Your task to perform on an android device: When is my next meeting? Image 0: 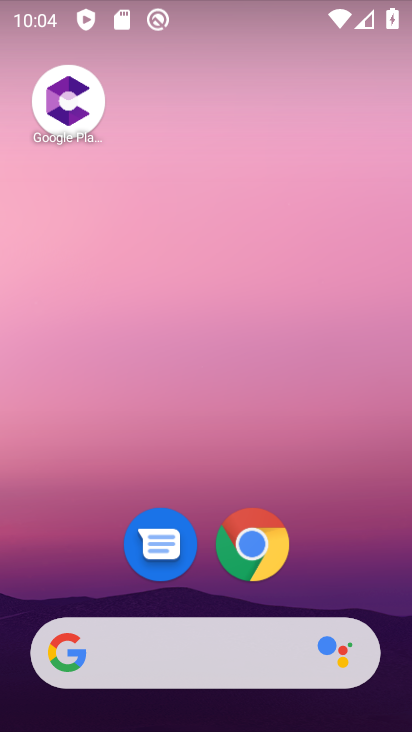
Step 0: drag from (219, 595) to (228, 229)
Your task to perform on an android device: When is my next meeting? Image 1: 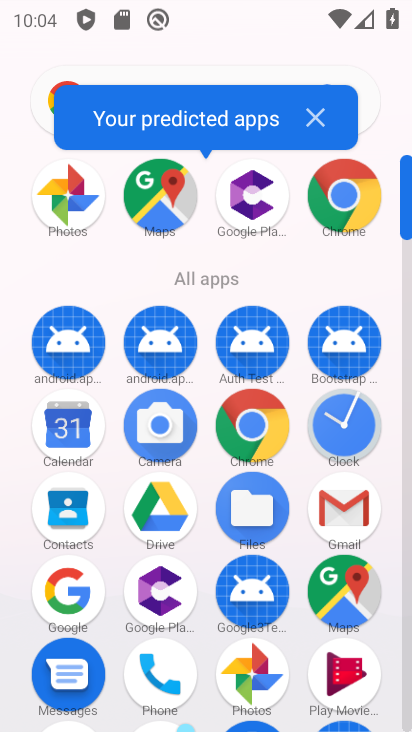
Step 1: click (81, 415)
Your task to perform on an android device: When is my next meeting? Image 2: 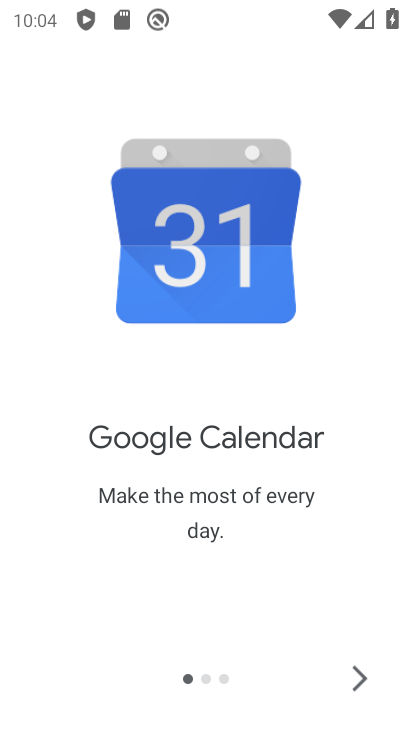
Step 2: click (345, 676)
Your task to perform on an android device: When is my next meeting? Image 3: 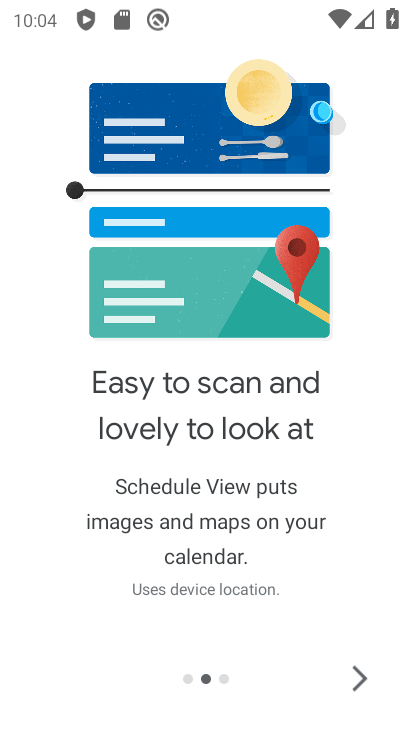
Step 3: click (345, 676)
Your task to perform on an android device: When is my next meeting? Image 4: 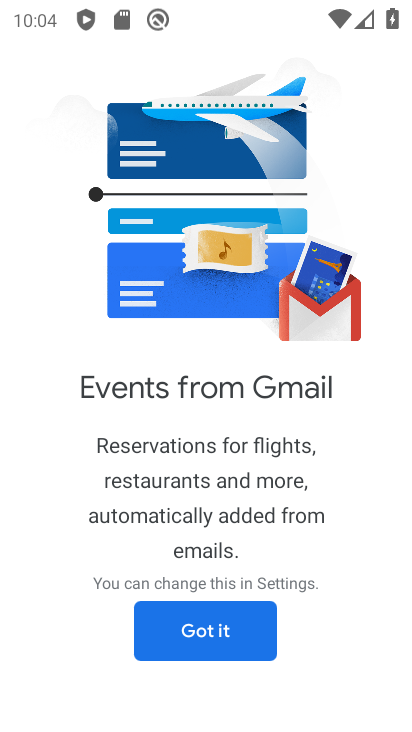
Step 4: click (266, 636)
Your task to perform on an android device: When is my next meeting? Image 5: 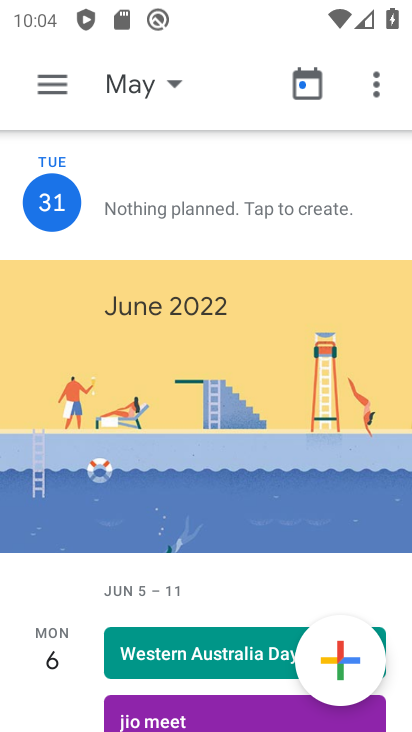
Step 5: drag from (208, 592) to (218, 290)
Your task to perform on an android device: When is my next meeting? Image 6: 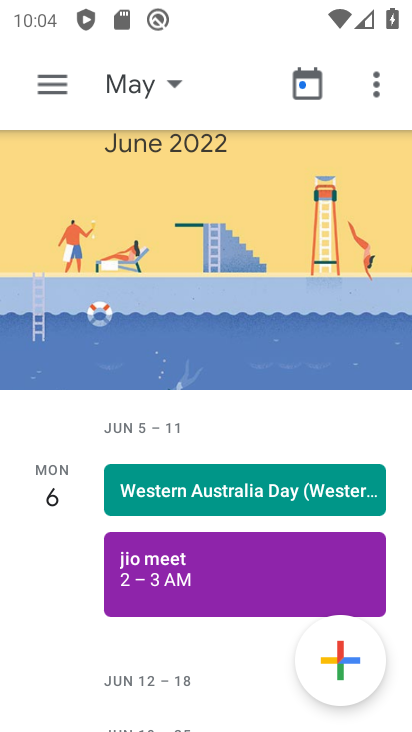
Step 6: click (229, 561)
Your task to perform on an android device: When is my next meeting? Image 7: 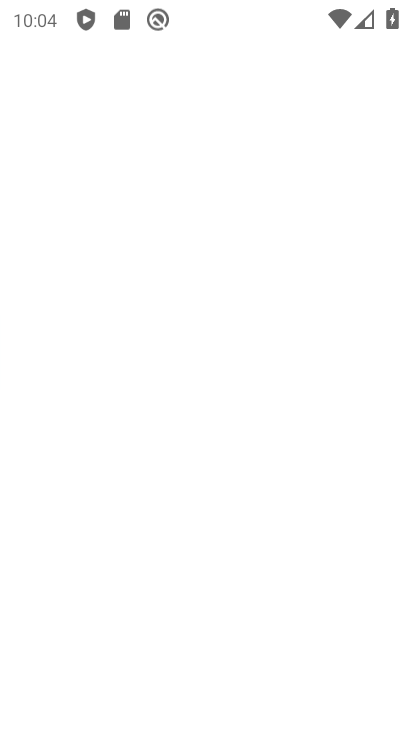
Step 7: task complete